Your task to perform on an android device: Go to display settings Image 0: 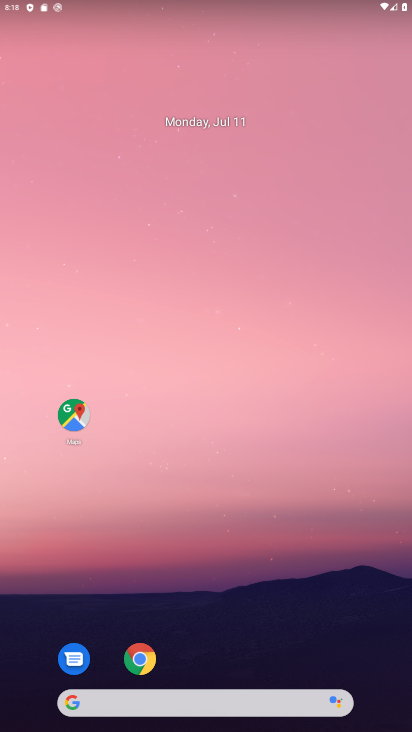
Step 0: drag from (34, 729) to (209, 46)
Your task to perform on an android device: Go to display settings Image 1: 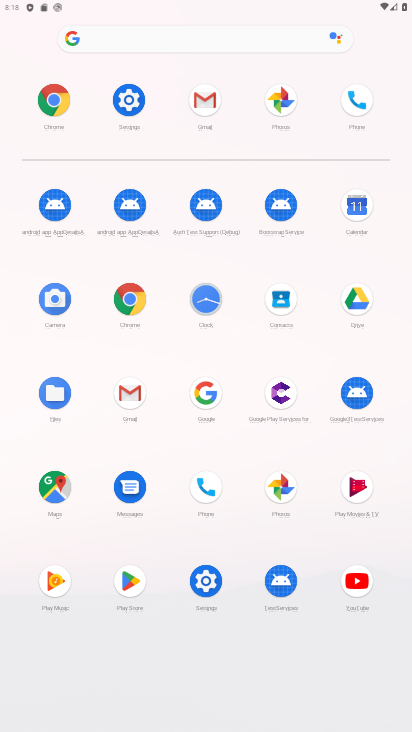
Step 1: click (210, 576)
Your task to perform on an android device: Go to display settings Image 2: 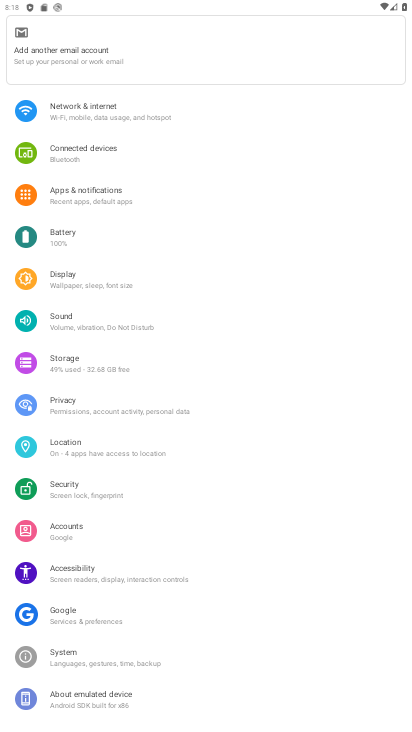
Step 2: click (86, 273)
Your task to perform on an android device: Go to display settings Image 3: 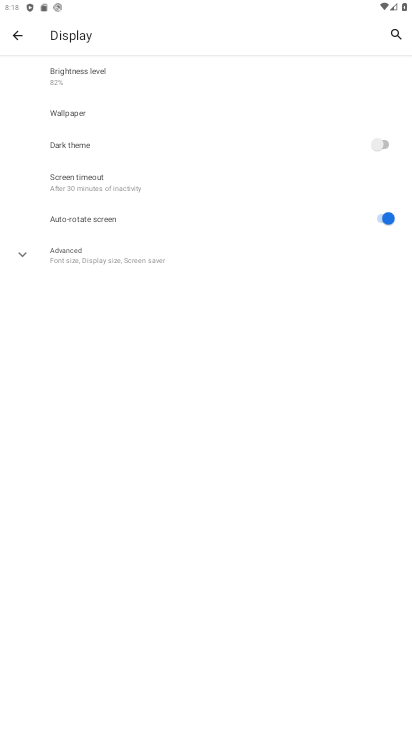
Step 3: task complete